Your task to perform on an android device: What is the news today? Image 0: 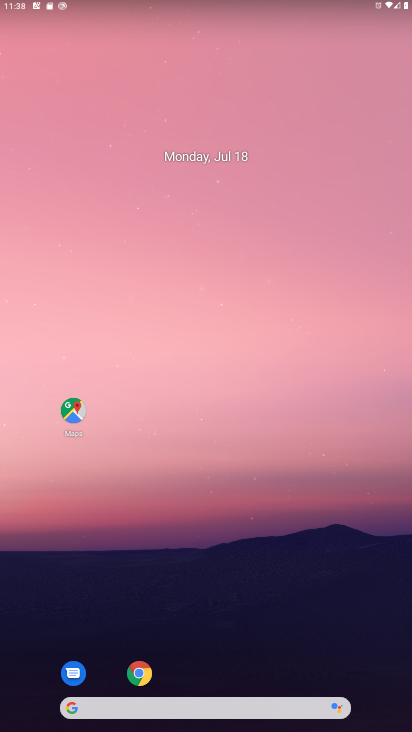
Step 0: drag from (208, 661) to (190, 205)
Your task to perform on an android device: What is the news today? Image 1: 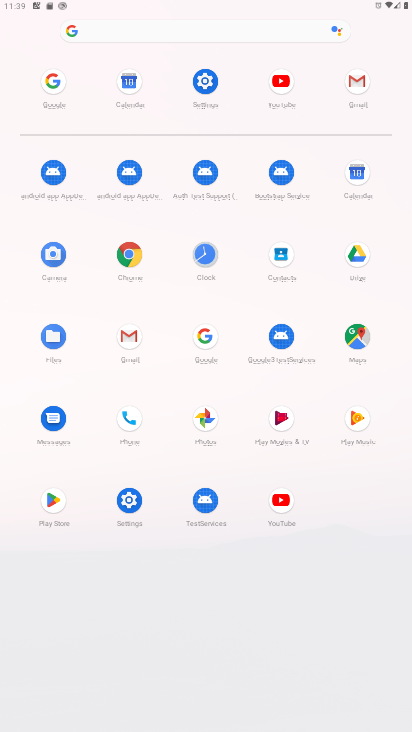
Step 1: click (194, 339)
Your task to perform on an android device: What is the news today? Image 2: 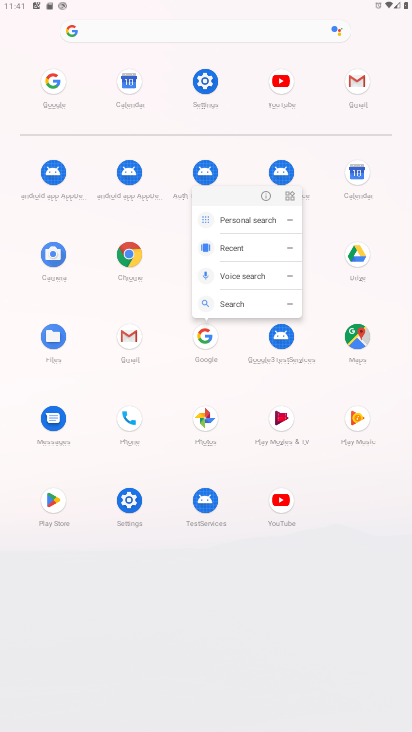
Step 2: click (215, 354)
Your task to perform on an android device: What is the news today? Image 3: 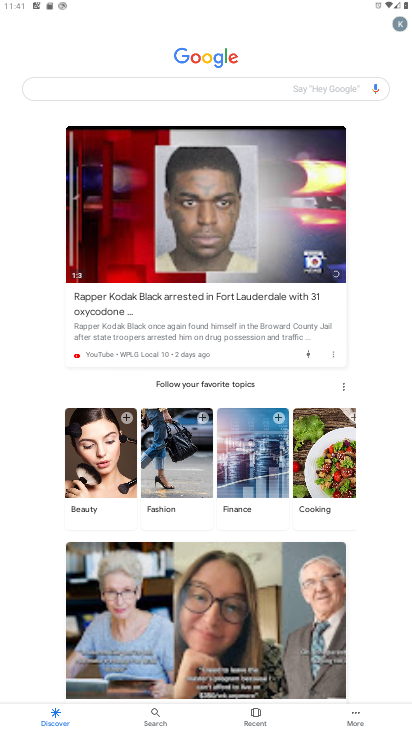
Step 3: click (86, 91)
Your task to perform on an android device: What is the news today? Image 4: 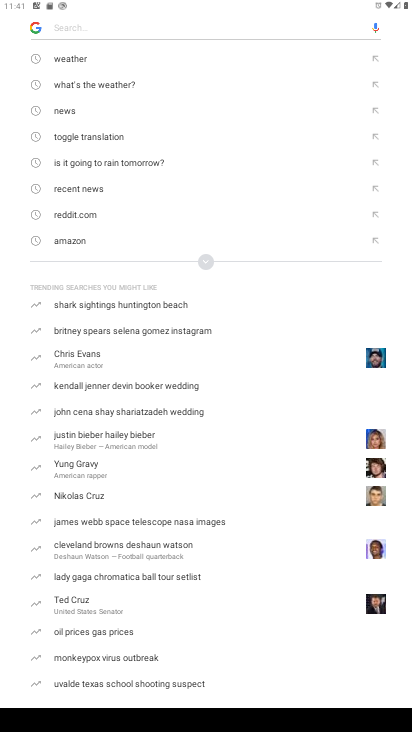
Step 4: click (85, 109)
Your task to perform on an android device: What is the news today? Image 5: 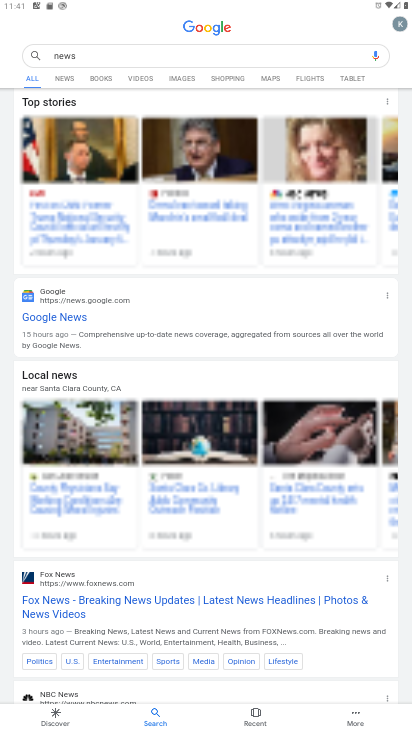
Step 5: click (61, 84)
Your task to perform on an android device: What is the news today? Image 6: 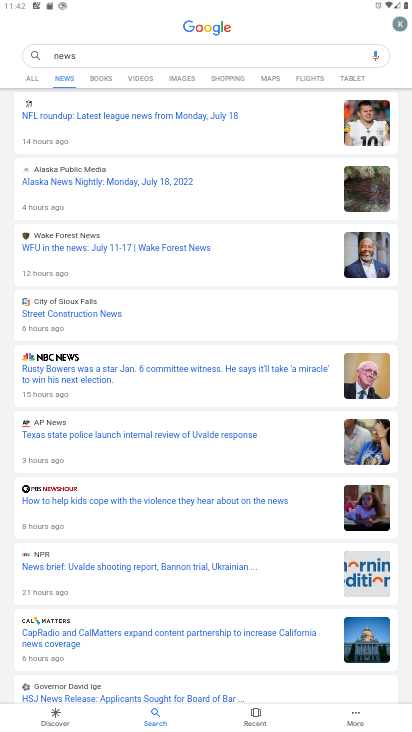
Step 6: task complete